Your task to perform on an android device: refresh tabs in the chrome app Image 0: 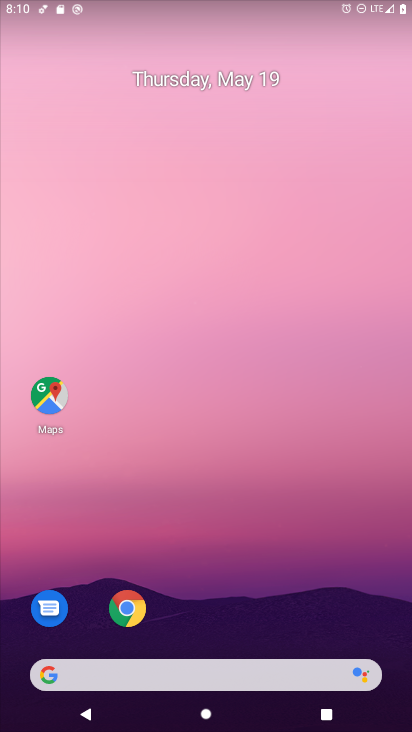
Step 0: click (128, 604)
Your task to perform on an android device: refresh tabs in the chrome app Image 1: 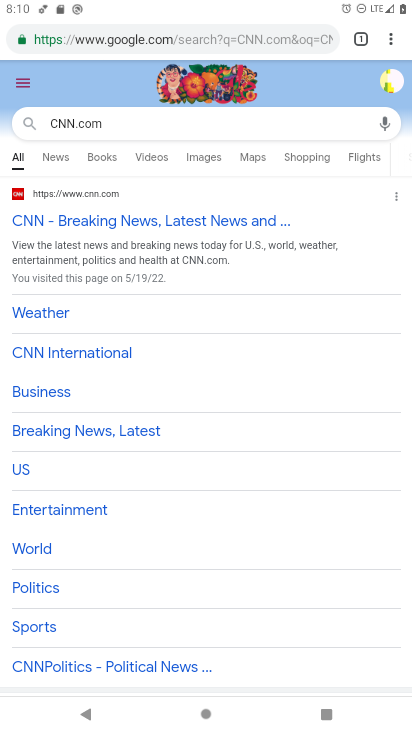
Step 1: click (394, 41)
Your task to perform on an android device: refresh tabs in the chrome app Image 2: 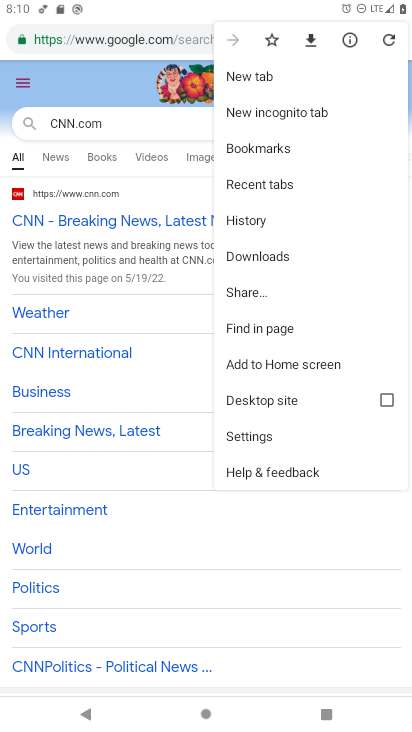
Step 2: click (387, 38)
Your task to perform on an android device: refresh tabs in the chrome app Image 3: 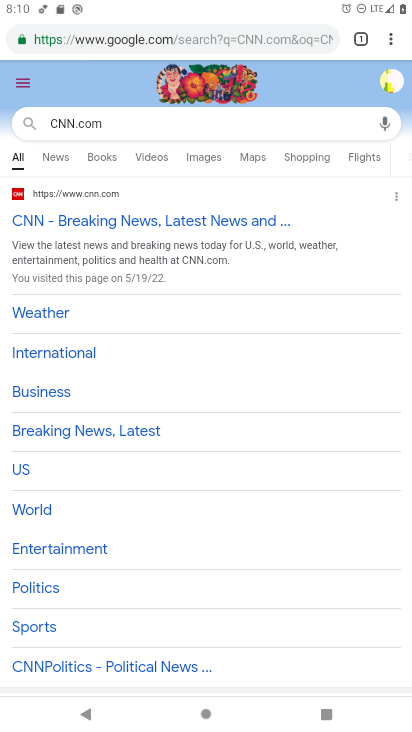
Step 3: task complete